Your task to perform on an android device: Clear the shopping cart on target. Image 0: 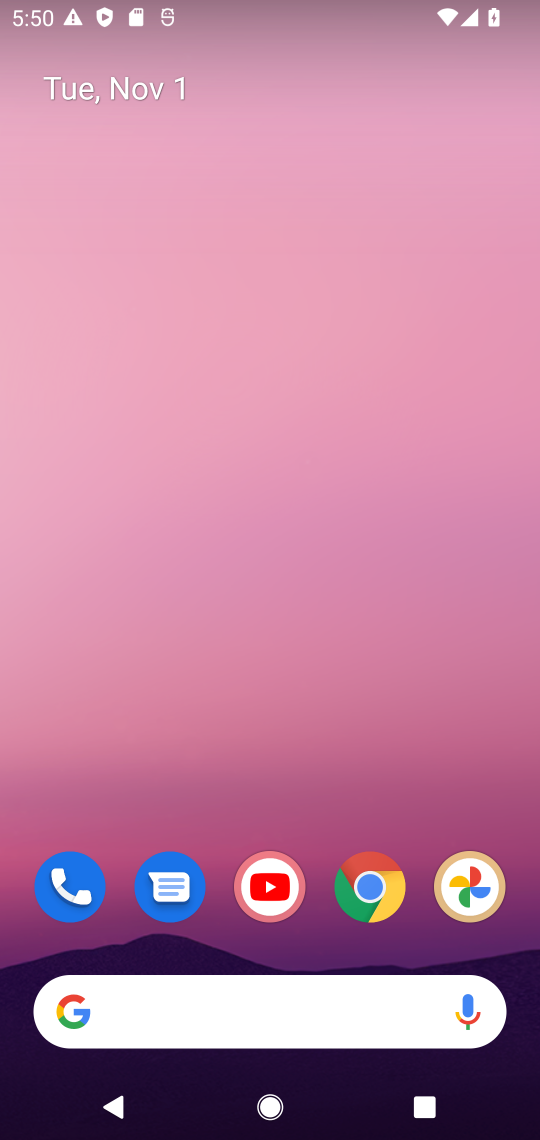
Step 0: press home button
Your task to perform on an android device: Clear the shopping cart on target. Image 1: 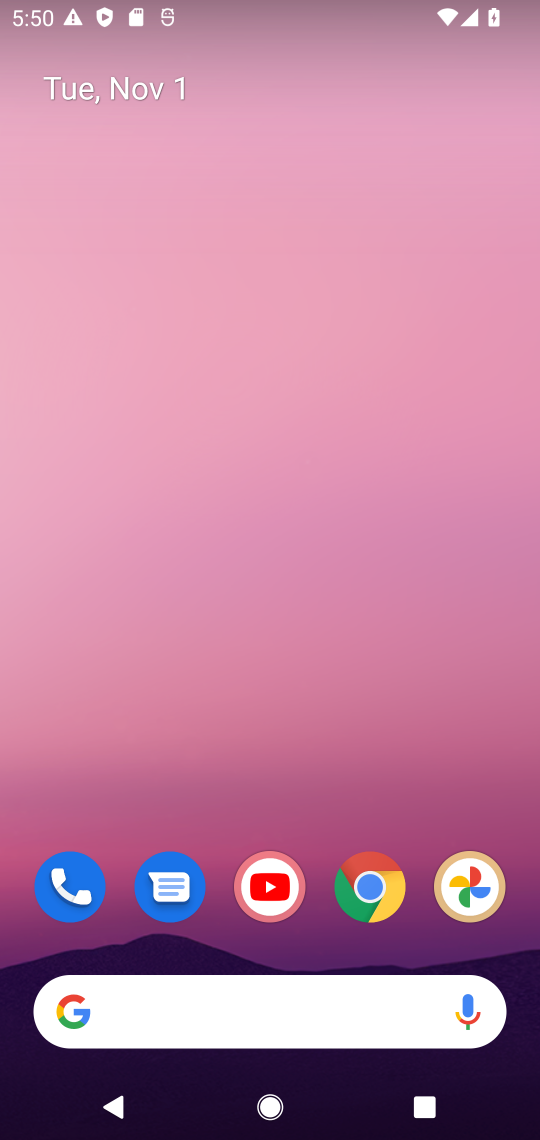
Step 1: drag from (302, 832) to (293, 22)
Your task to perform on an android device: Clear the shopping cart on target. Image 2: 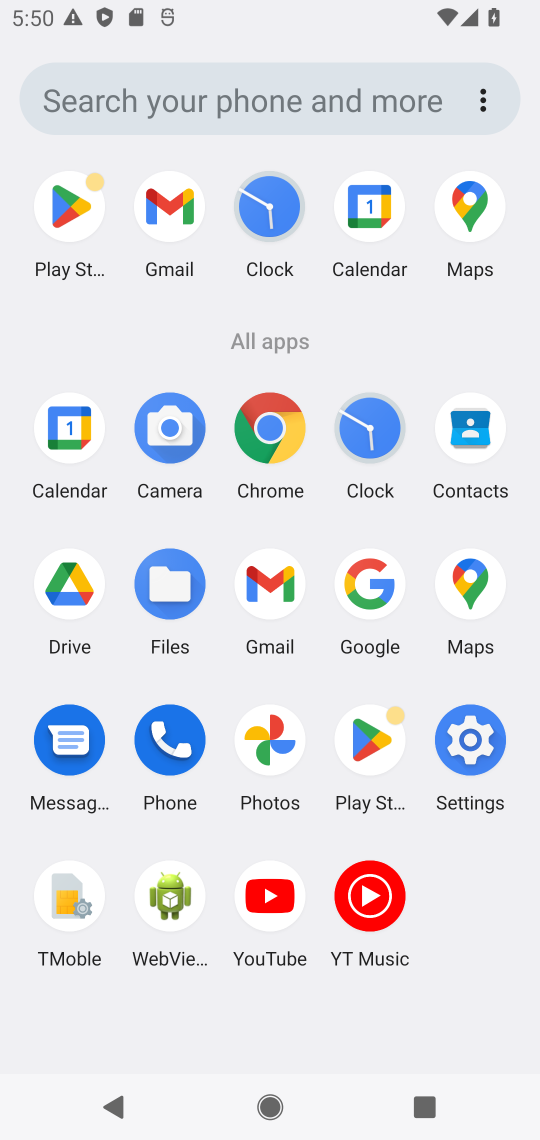
Step 2: click (262, 417)
Your task to perform on an android device: Clear the shopping cart on target. Image 3: 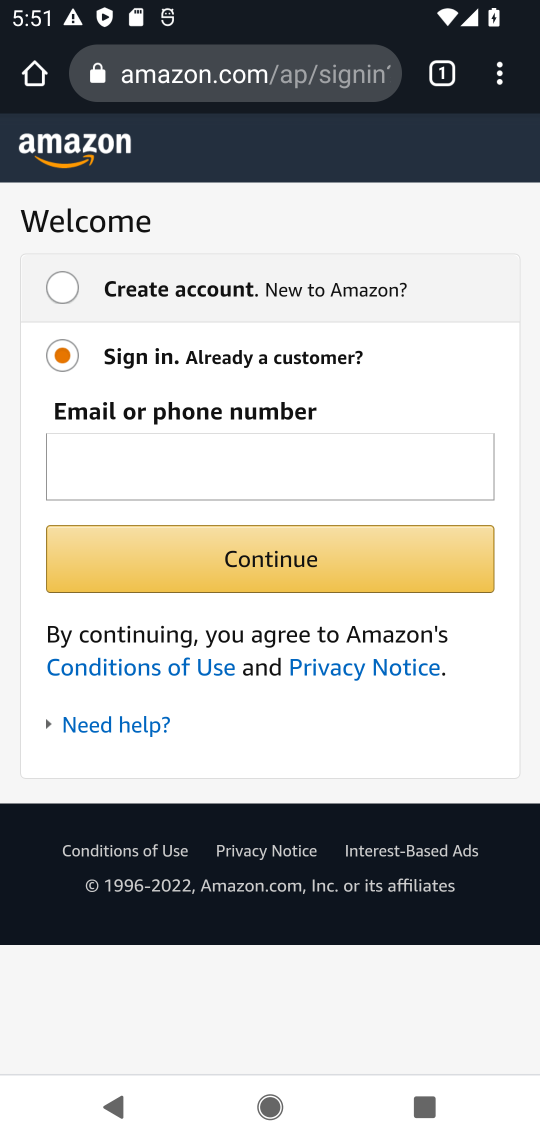
Step 3: click (268, 67)
Your task to perform on an android device: Clear the shopping cart on target. Image 4: 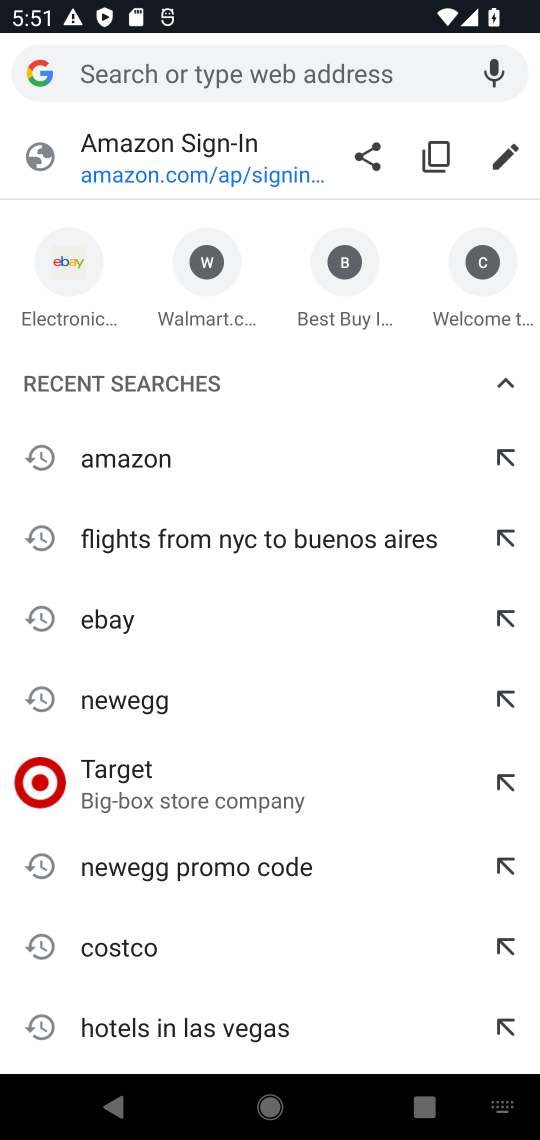
Step 4: click (156, 778)
Your task to perform on an android device: Clear the shopping cart on target. Image 5: 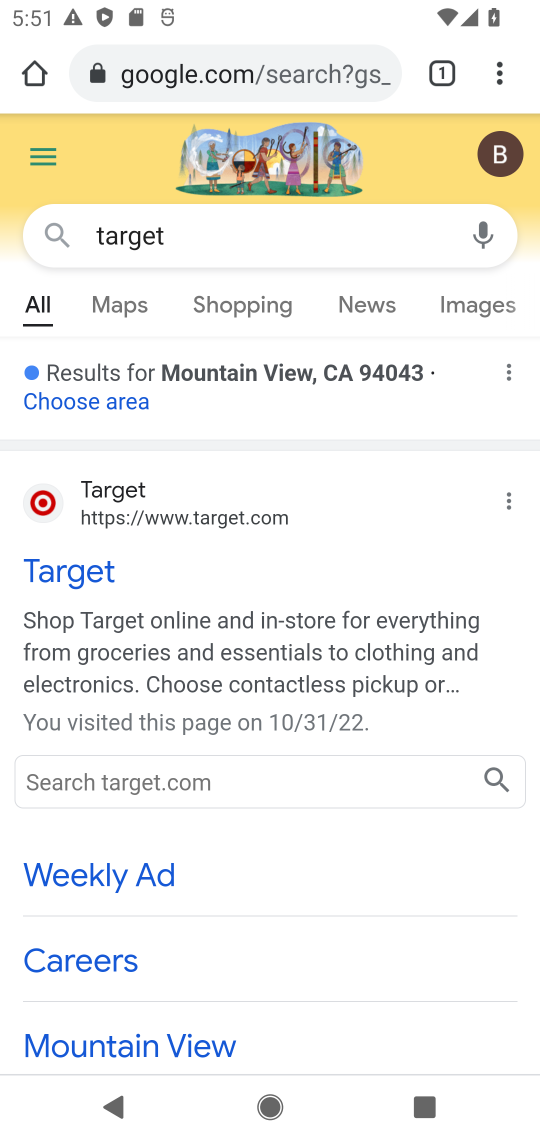
Step 5: click (76, 571)
Your task to perform on an android device: Clear the shopping cart on target. Image 6: 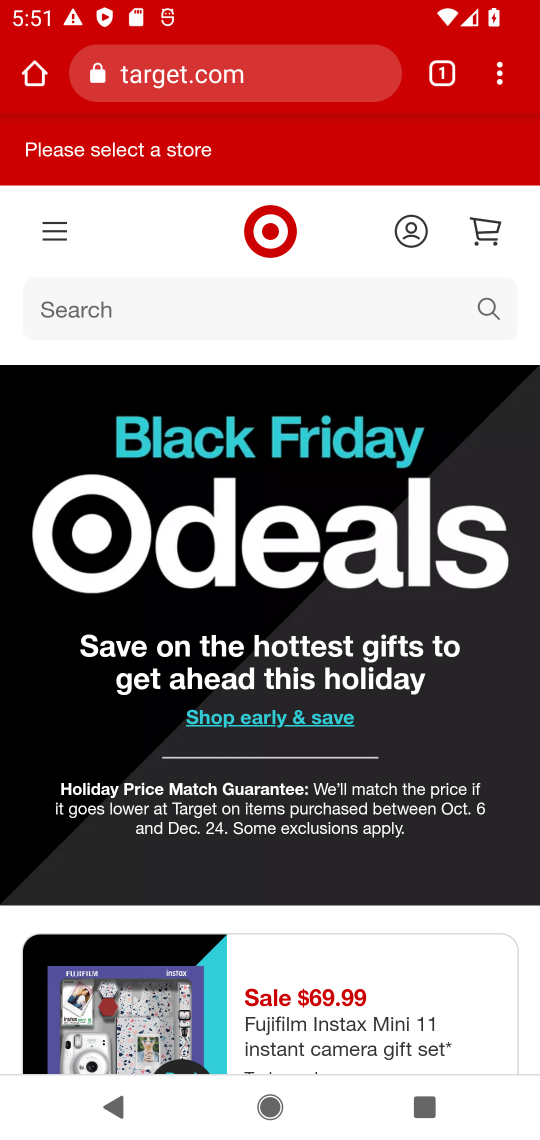
Step 6: drag from (293, 949) to (363, 229)
Your task to perform on an android device: Clear the shopping cart on target. Image 7: 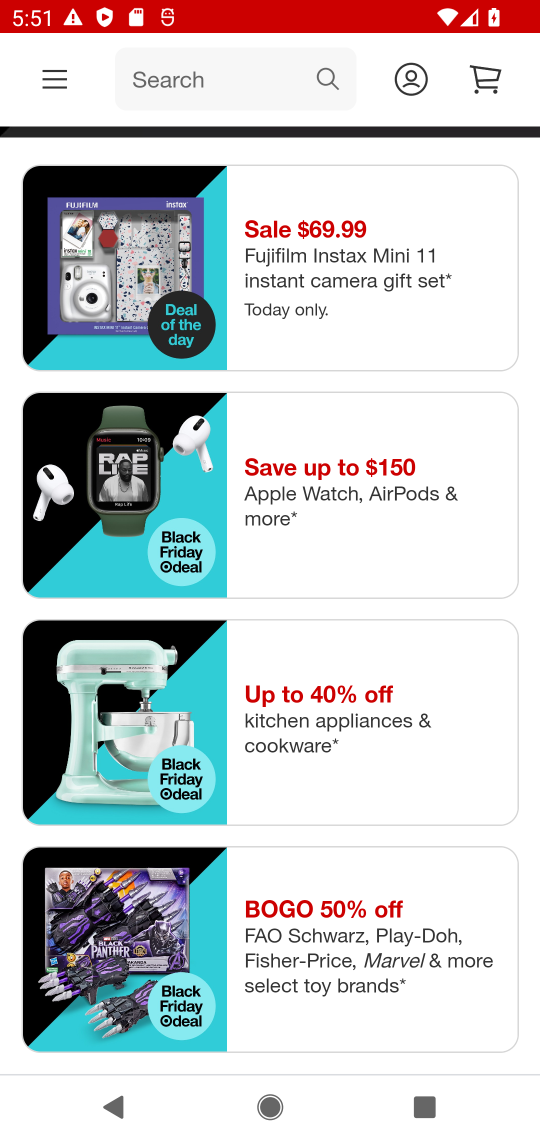
Step 7: drag from (251, 162) to (272, 847)
Your task to perform on an android device: Clear the shopping cart on target. Image 8: 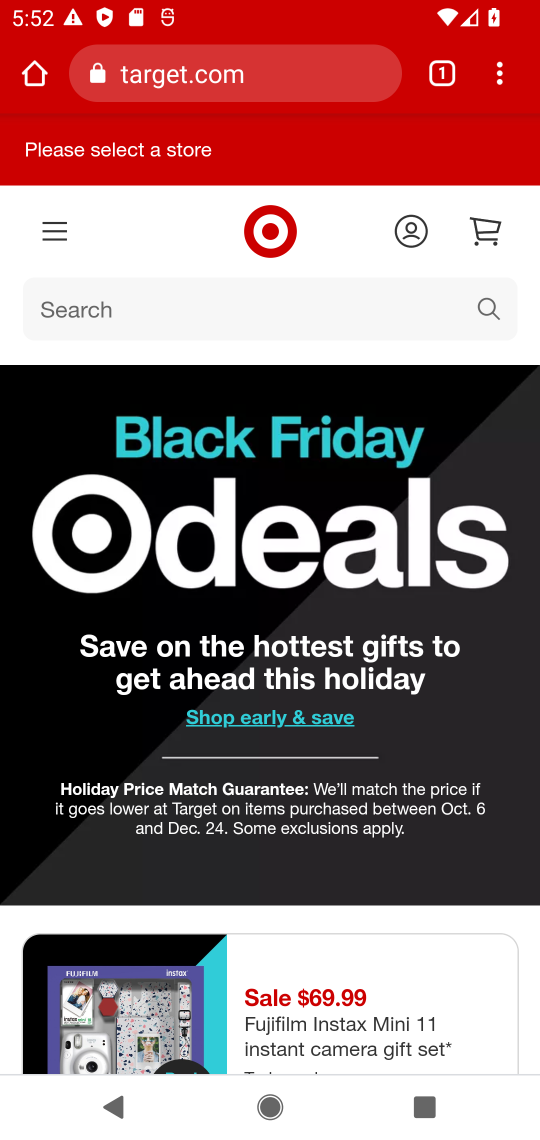
Step 8: click (484, 238)
Your task to perform on an android device: Clear the shopping cart on target. Image 9: 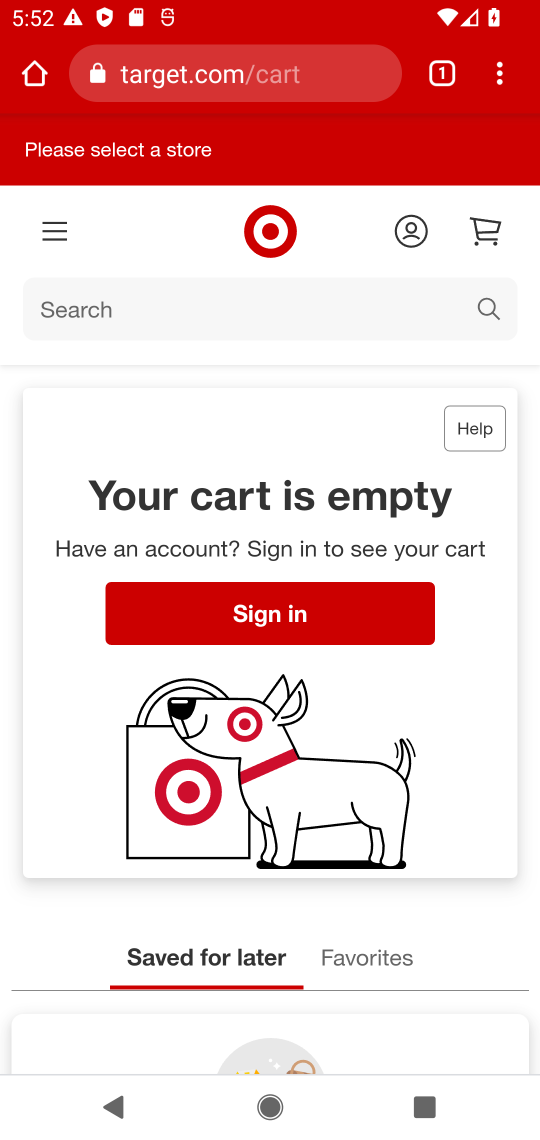
Step 9: task complete